Your task to perform on an android device: see tabs open on other devices in the chrome app Image 0: 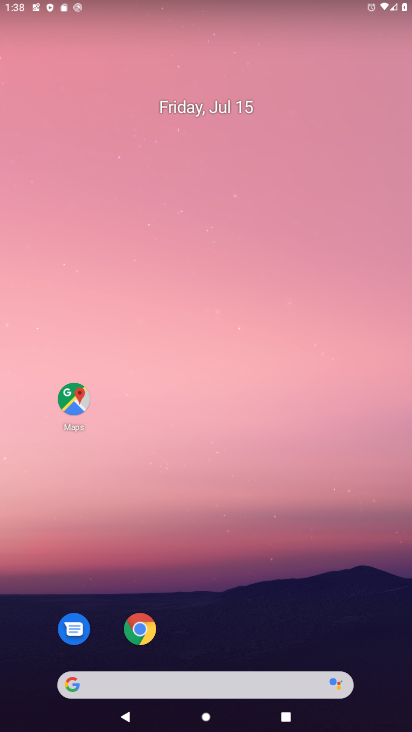
Step 0: click (142, 626)
Your task to perform on an android device: see tabs open on other devices in the chrome app Image 1: 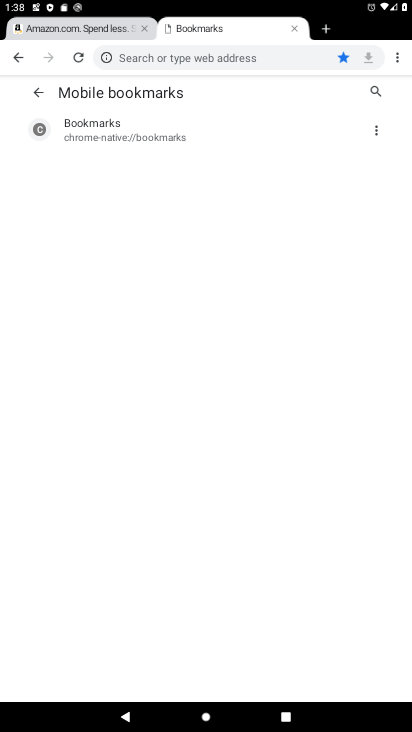
Step 1: task complete